Your task to perform on an android device: Open calendar and show me the third week of next month Image 0: 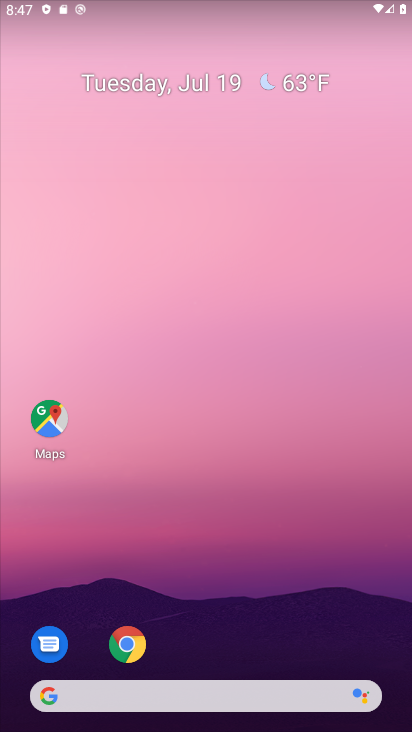
Step 0: press back button
Your task to perform on an android device: Open calendar and show me the third week of next month Image 1: 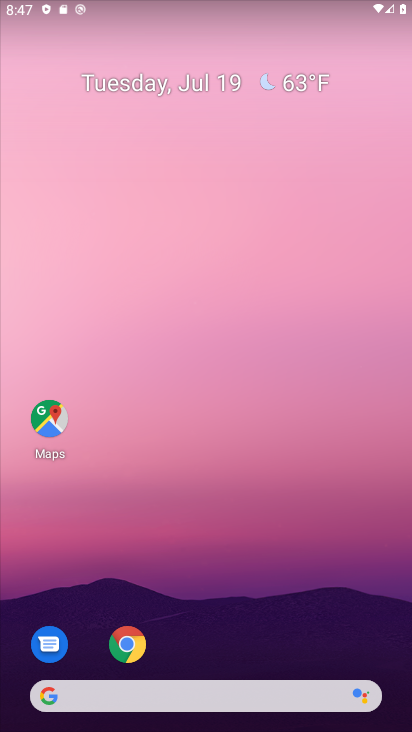
Step 1: drag from (253, 552) to (210, 170)
Your task to perform on an android device: Open calendar and show me the third week of next month Image 2: 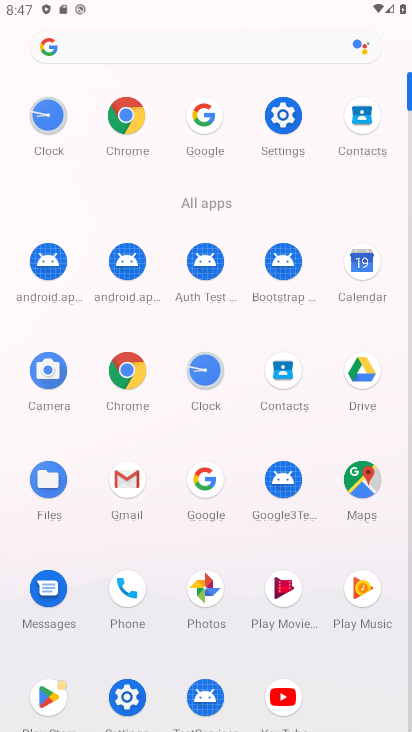
Step 2: click (357, 264)
Your task to perform on an android device: Open calendar and show me the third week of next month Image 3: 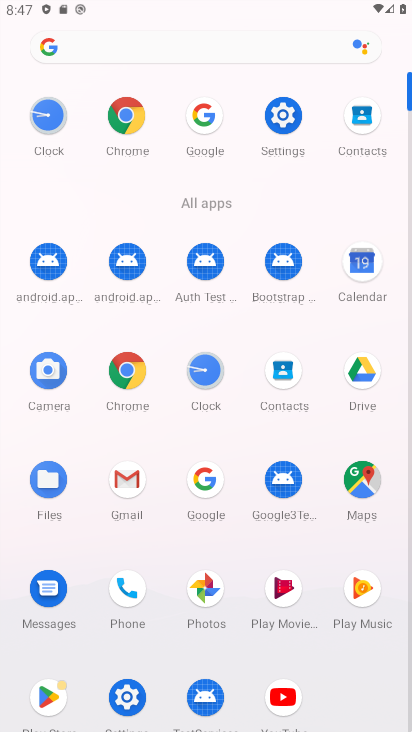
Step 3: click (357, 263)
Your task to perform on an android device: Open calendar and show me the third week of next month Image 4: 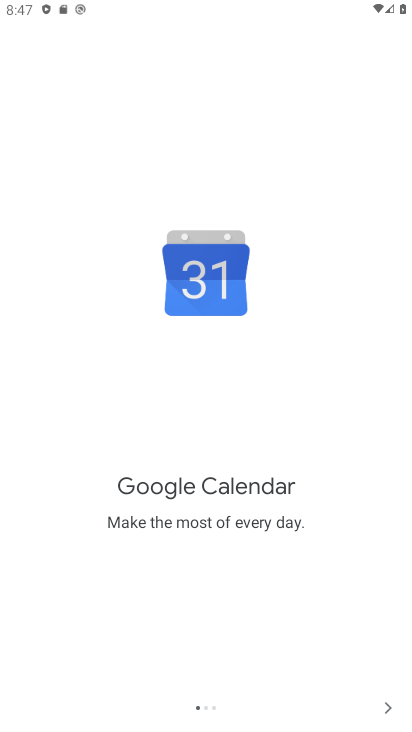
Step 4: click (383, 701)
Your task to perform on an android device: Open calendar and show me the third week of next month Image 5: 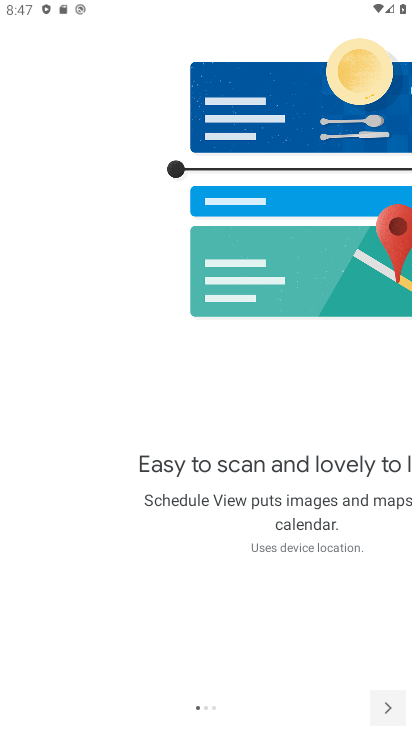
Step 5: click (385, 701)
Your task to perform on an android device: Open calendar and show me the third week of next month Image 6: 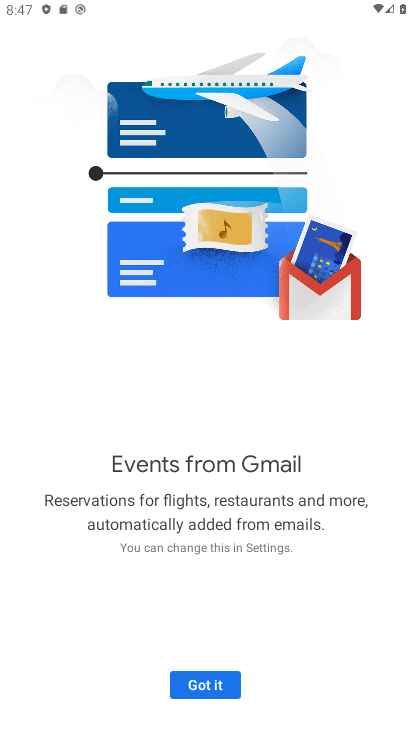
Step 6: click (381, 701)
Your task to perform on an android device: Open calendar and show me the third week of next month Image 7: 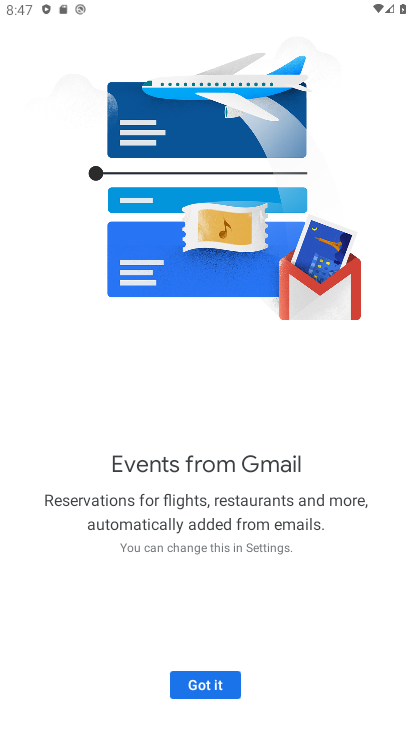
Step 7: click (209, 677)
Your task to perform on an android device: Open calendar and show me the third week of next month Image 8: 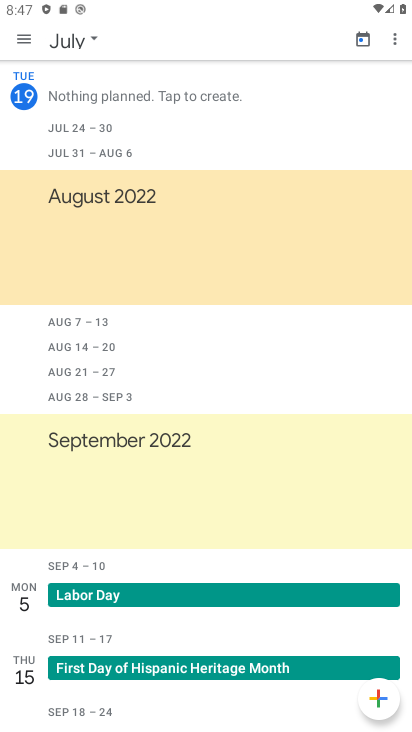
Step 8: click (94, 36)
Your task to perform on an android device: Open calendar and show me the third week of next month Image 9: 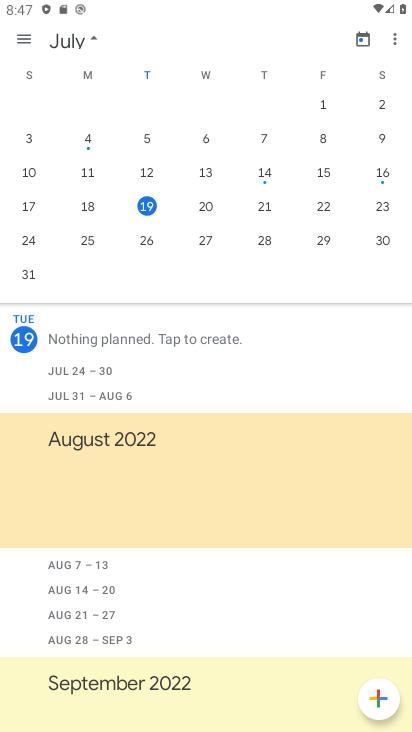
Step 9: drag from (300, 194) to (3, 267)
Your task to perform on an android device: Open calendar and show me the third week of next month Image 10: 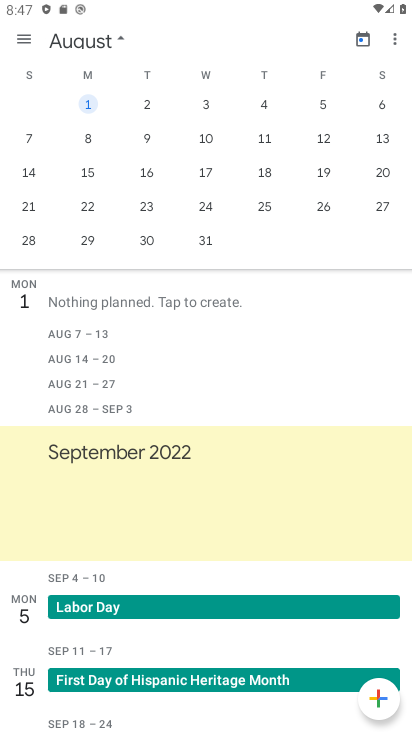
Step 10: click (140, 174)
Your task to perform on an android device: Open calendar and show me the third week of next month Image 11: 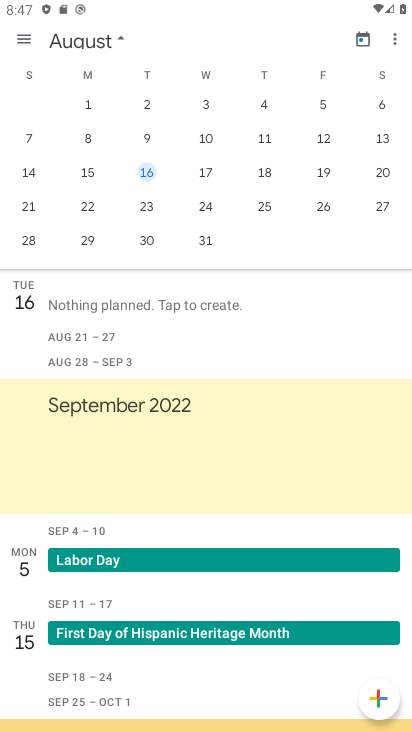
Step 11: click (152, 170)
Your task to perform on an android device: Open calendar and show me the third week of next month Image 12: 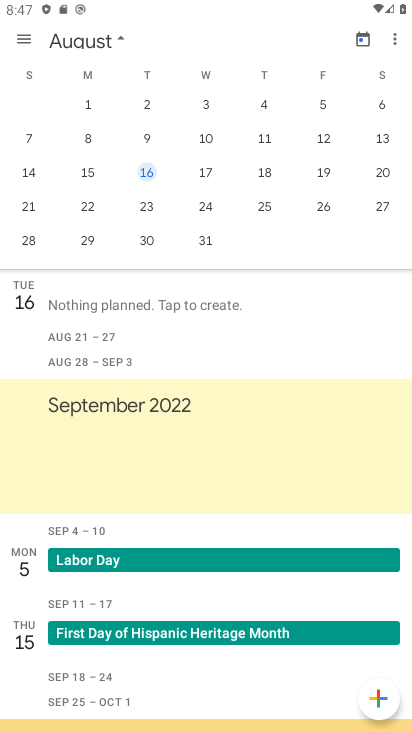
Step 12: click (152, 170)
Your task to perform on an android device: Open calendar and show me the third week of next month Image 13: 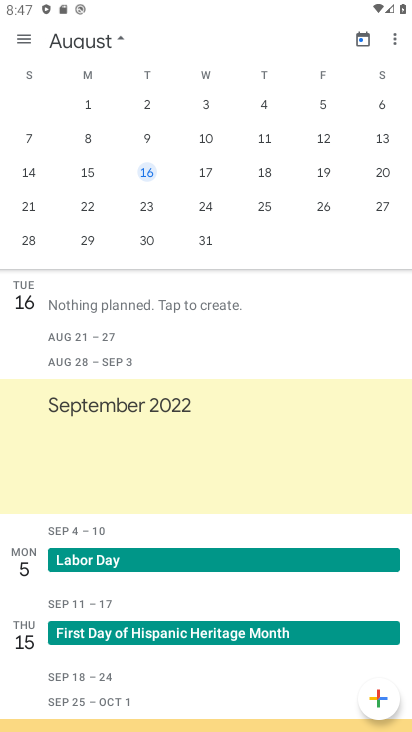
Step 13: click (149, 172)
Your task to perform on an android device: Open calendar and show me the third week of next month Image 14: 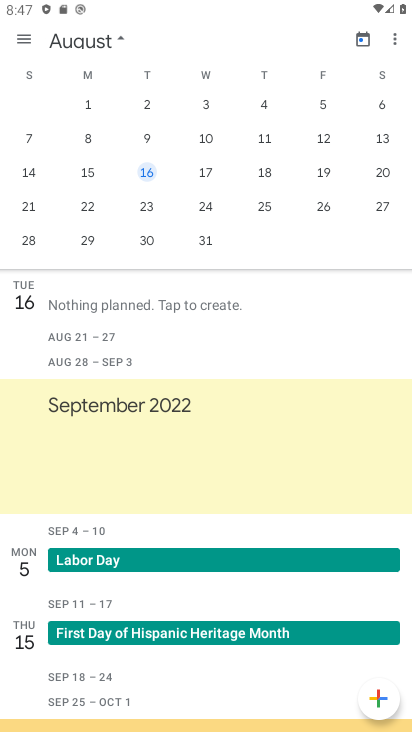
Step 14: click (149, 172)
Your task to perform on an android device: Open calendar and show me the third week of next month Image 15: 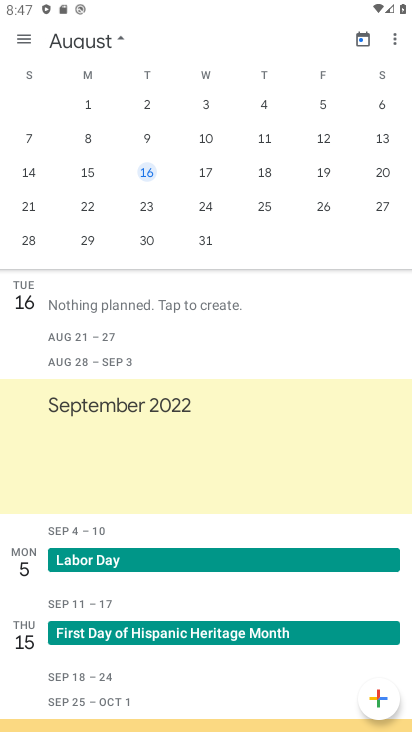
Step 15: task complete